Your task to perform on an android device: clear all cookies in the chrome app Image 0: 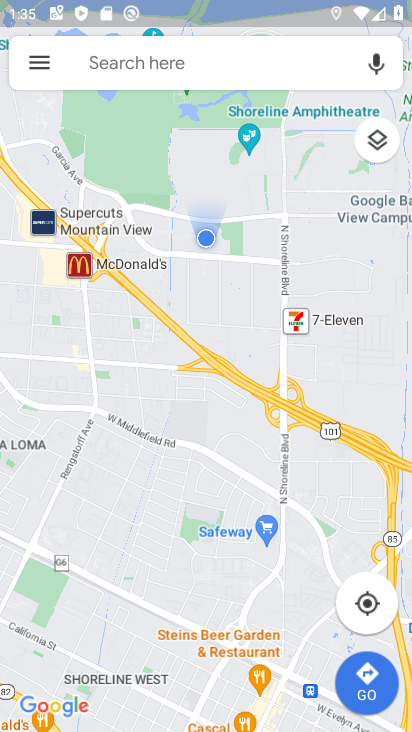
Step 0: press back button
Your task to perform on an android device: clear all cookies in the chrome app Image 1: 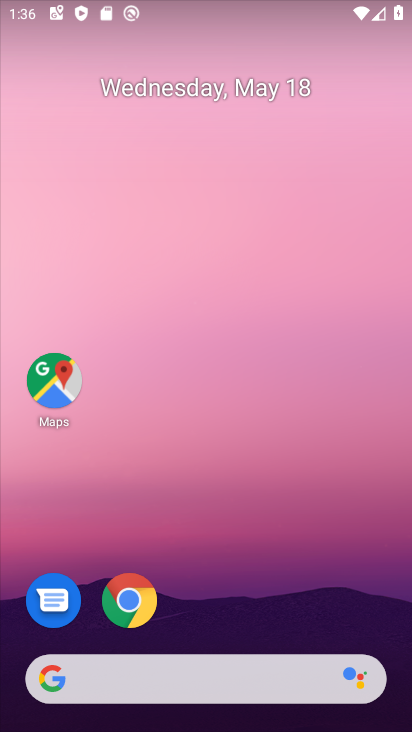
Step 1: click (127, 599)
Your task to perform on an android device: clear all cookies in the chrome app Image 2: 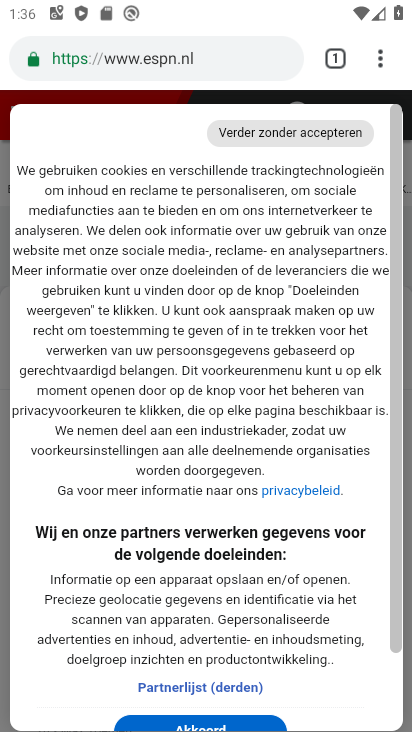
Step 2: click (379, 61)
Your task to perform on an android device: clear all cookies in the chrome app Image 3: 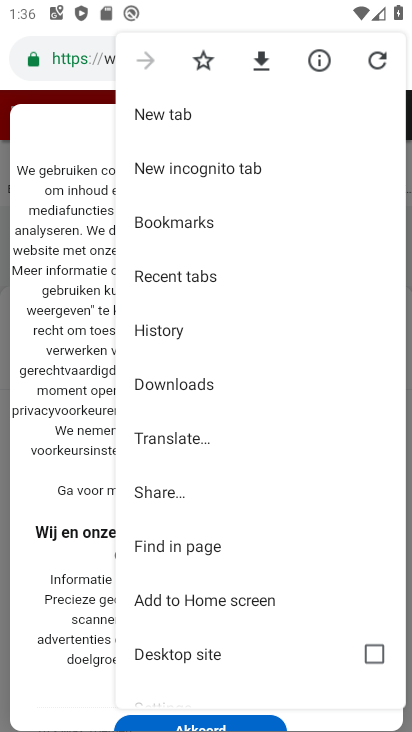
Step 3: drag from (207, 614) to (250, 510)
Your task to perform on an android device: clear all cookies in the chrome app Image 4: 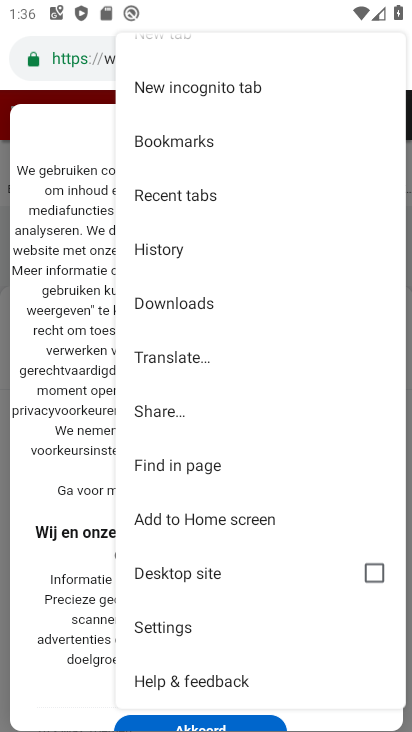
Step 4: click (167, 623)
Your task to perform on an android device: clear all cookies in the chrome app Image 5: 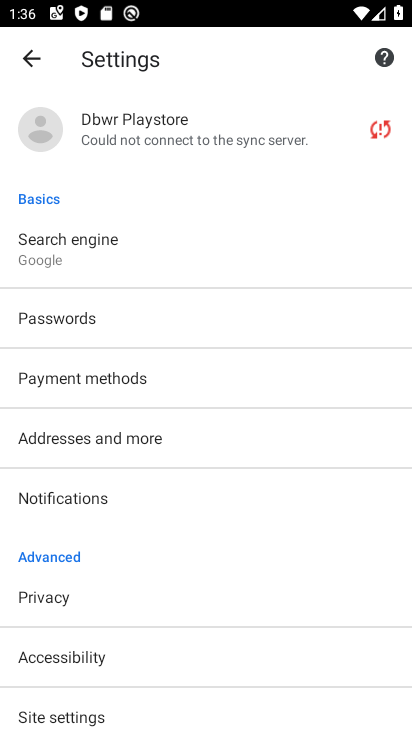
Step 5: click (62, 596)
Your task to perform on an android device: clear all cookies in the chrome app Image 6: 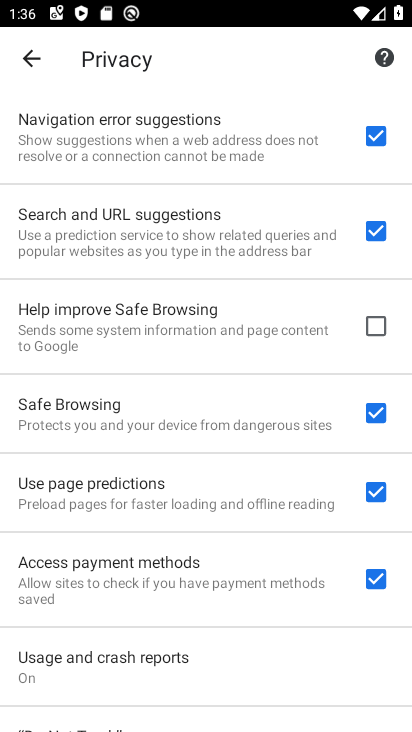
Step 6: drag from (180, 538) to (200, 497)
Your task to perform on an android device: clear all cookies in the chrome app Image 7: 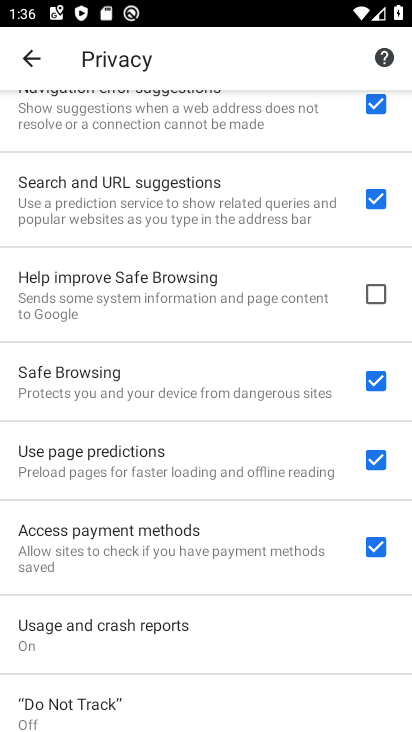
Step 7: drag from (170, 645) to (258, 477)
Your task to perform on an android device: clear all cookies in the chrome app Image 8: 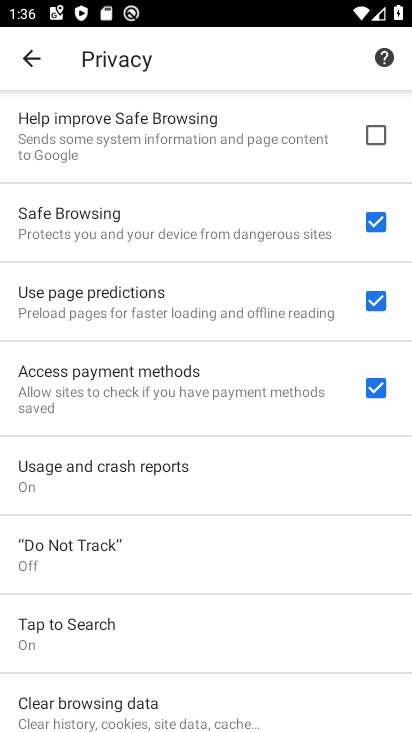
Step 8: drag from (153, 636) to (237, 501)
Your task to perform on an android device: clear all cookies in the chrome app Image 9: 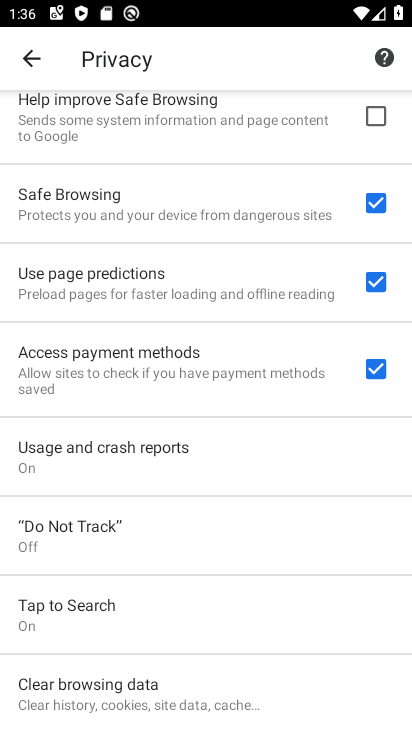
Step 9: click (115, 687)
Your task to perform on an android device: clear all cookies in the chrome app Image 10: 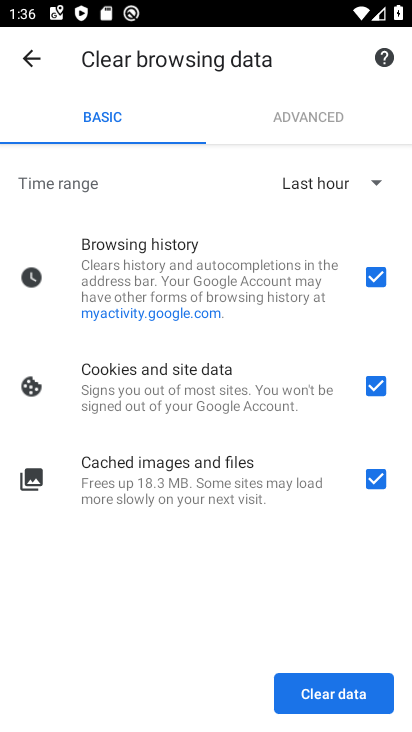
Step 10: click (371, 276)
Your task to perform on an android device: clear all cookies in the chrome app Image 11: 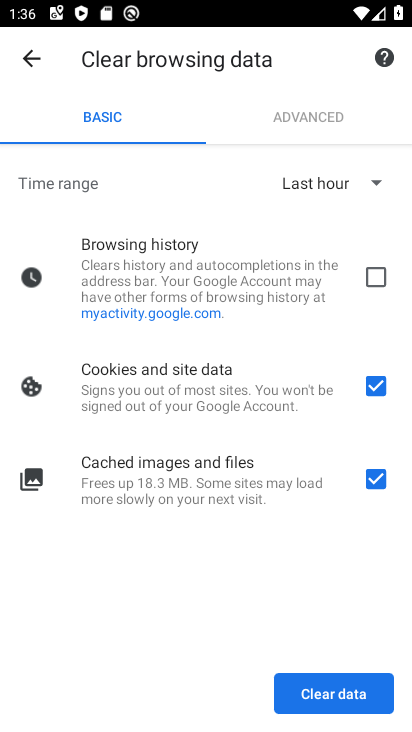
Step 11: click (369, 480)
Your task to perform on an android device: clear all cookies in the chrome app Image 12: 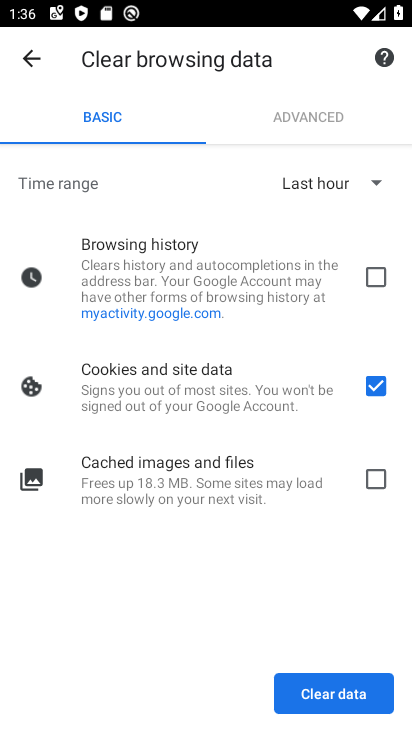
Step 12: click (329, 176)
Your task to perform on an android device: clear all cookies in the chrome app Image 13: 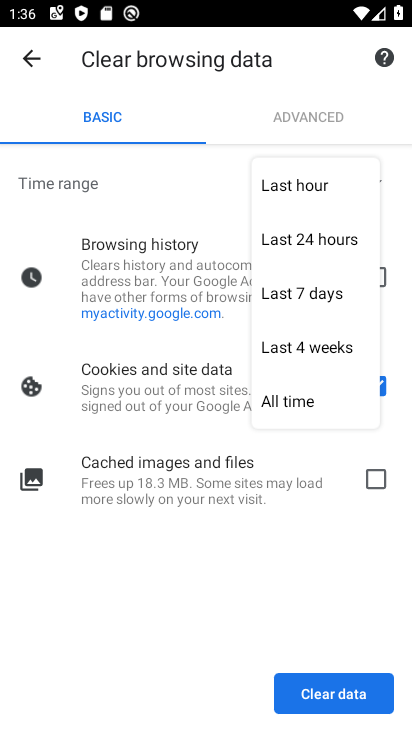
Step 13: click (271, 398)
Your task to perform on an android device: clear all cookies in the chrome app Image 14: 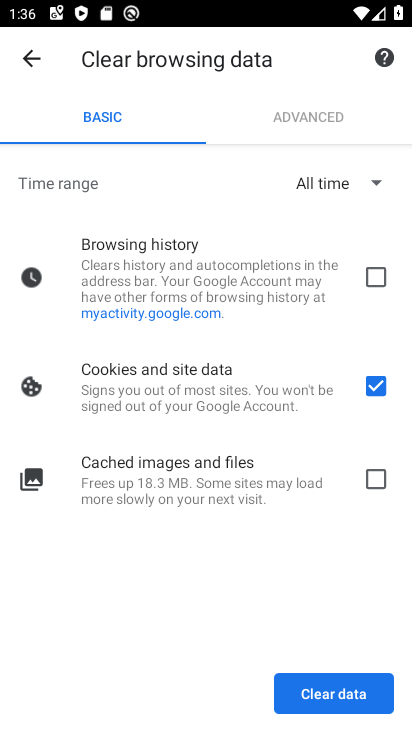
Step 14: click (324, 704)
Your task to perform on an android device: clear all cookies in the chrome app Image 15: 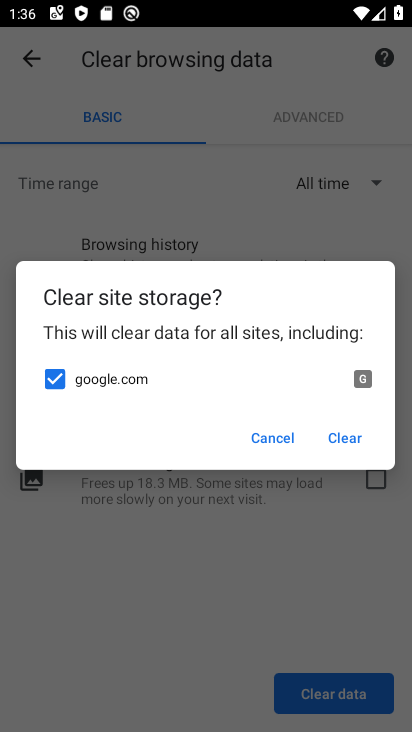
Step 15: click (355, 436)
Your task to perform on an android device: clear all cookies in the chrome app Image 16: 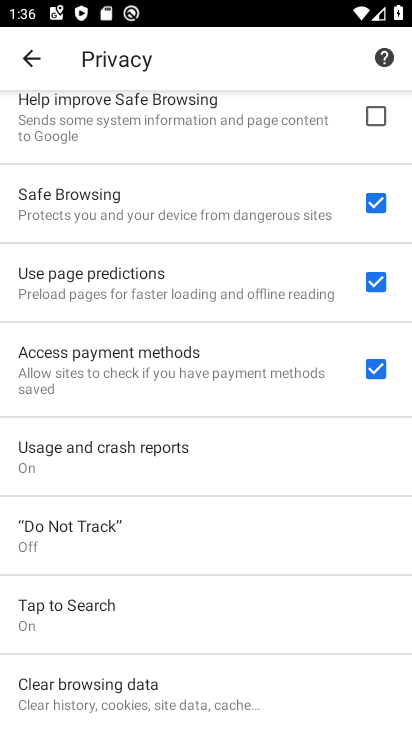
Step 16: task complete